Your task to perform on an android device: Search for pizza restaurants on Maps Image 0: 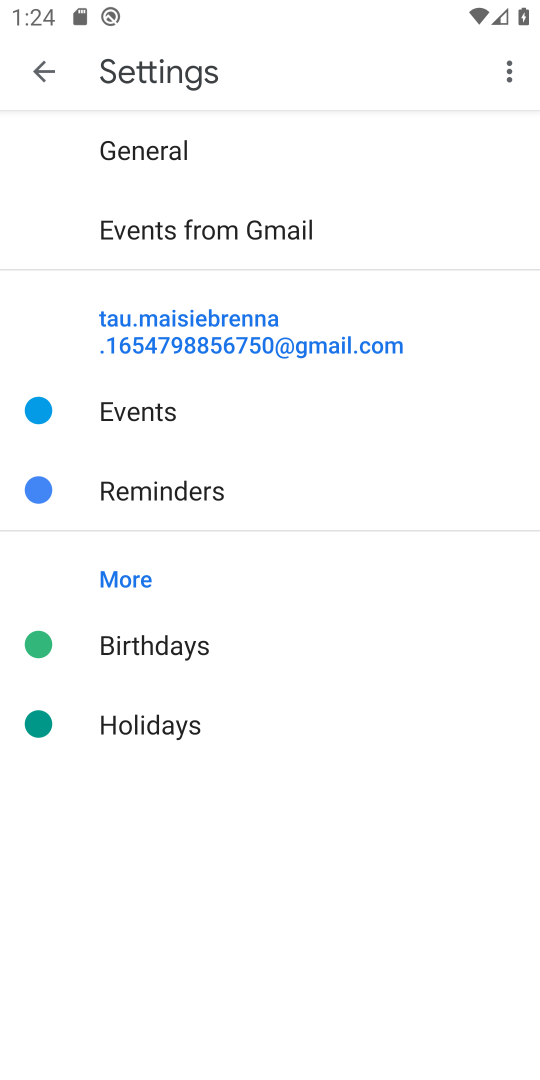
Step 0: press home button
Your task to perform on an android device: Search for pizza restaurants on Maps Image 1: 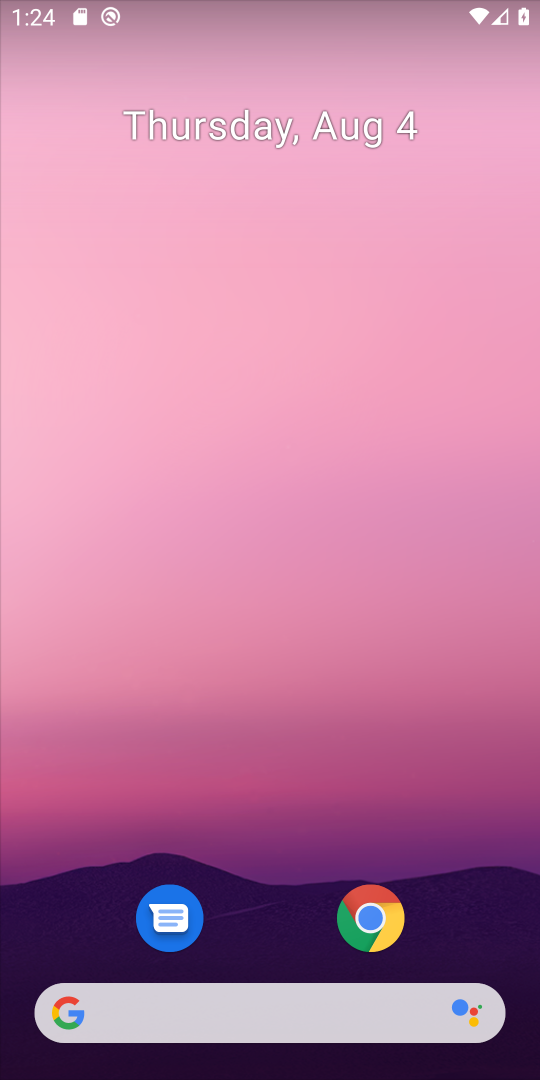
Step 1: drag from (253, 929) to (267, 289)
Your task to perform on an android device: Search for pizza restaurants on Maps Image 2: 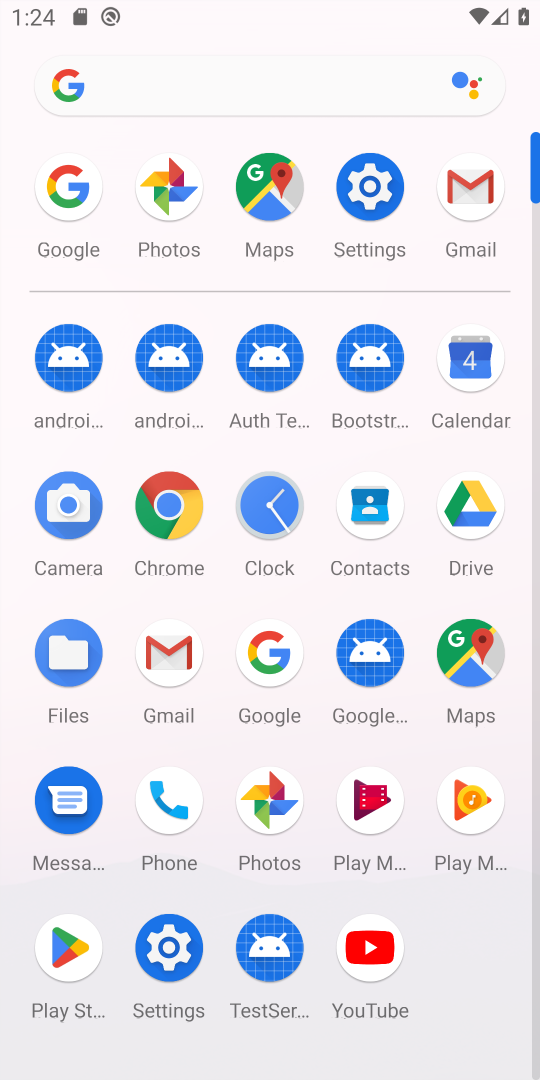
Step 2: click (286, 218)
Your task to perform on an android device: Search for pizza restaurants on Maps Image 3: 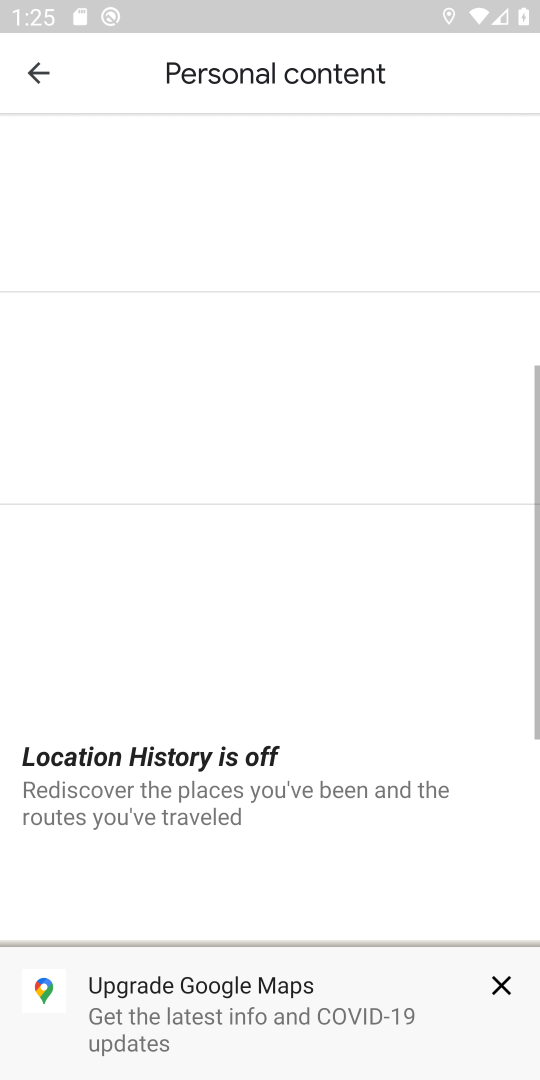
Step 3: click (42, 60)
Your task to perform on an android device: Search for pizza restaurants on Maps Image 4: 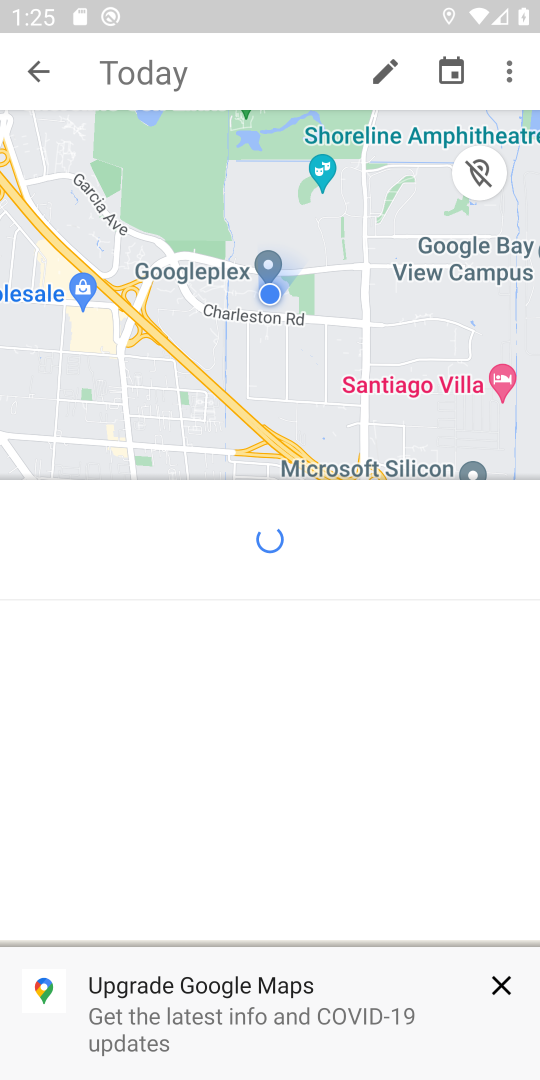
Step 4: click (326, 69)
Your task to perform on an android device: Search for pizza restaurants on Maps Image 5: 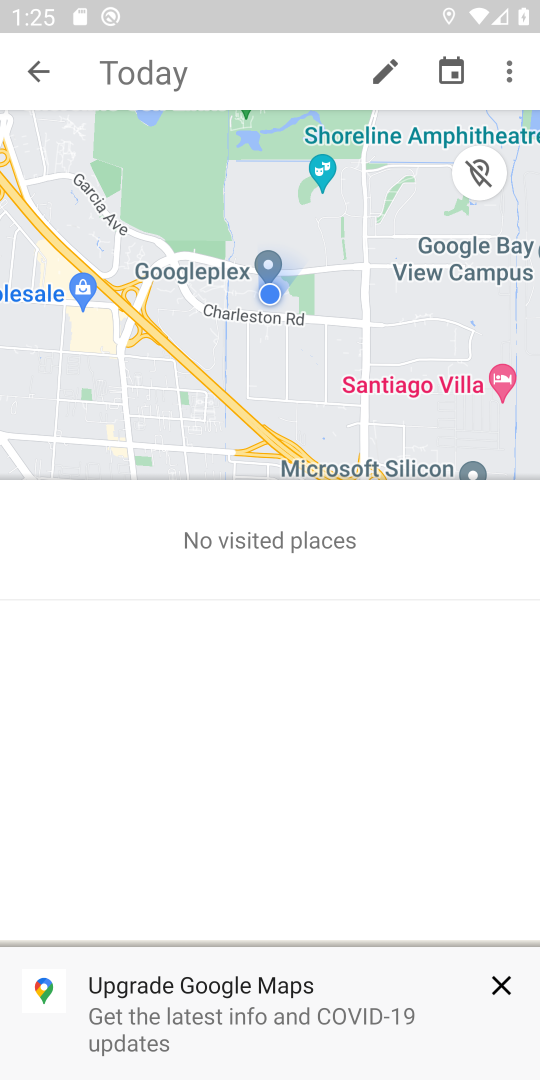
Step 5: click (31, 75)
Your task to perform on an android device: Search for pizza restaurants on Maps Image 6: 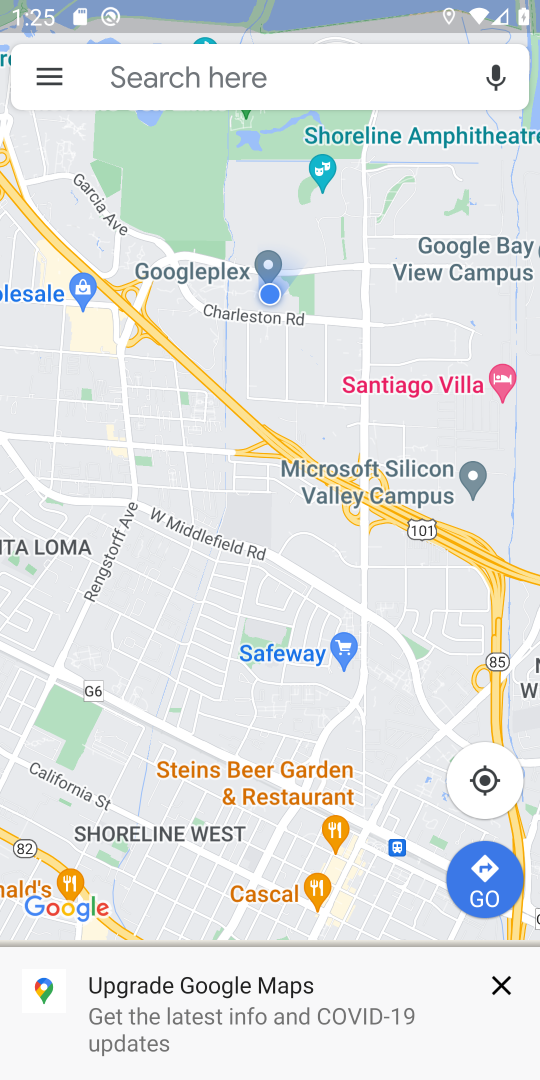
Step 6: click (124, 63)
Your task to perform on an android device: Search for pizza restaurants on Maps Image 7: 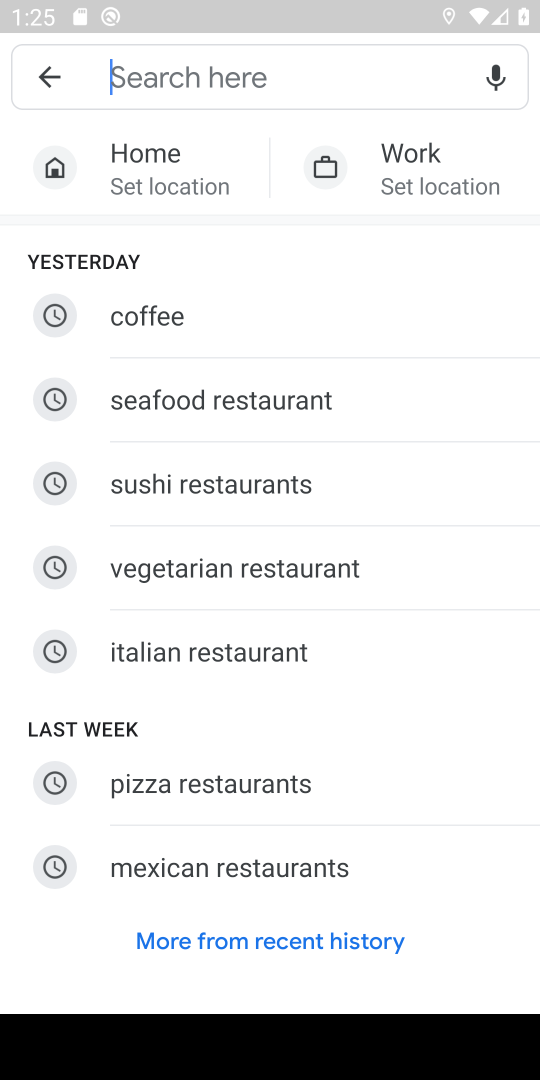
Step 7: click (204, 799)
Your task to perform on an android device: Search for pizza restaurants on Maps Image 8: 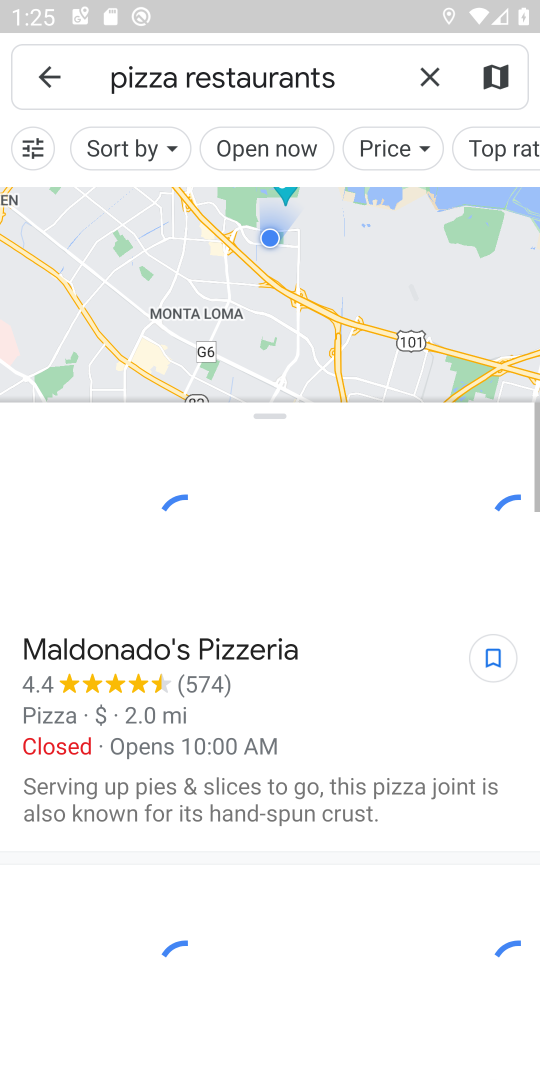
Step 8: task complete